Your task to perform on an android device: What's the weather today? Image 0: 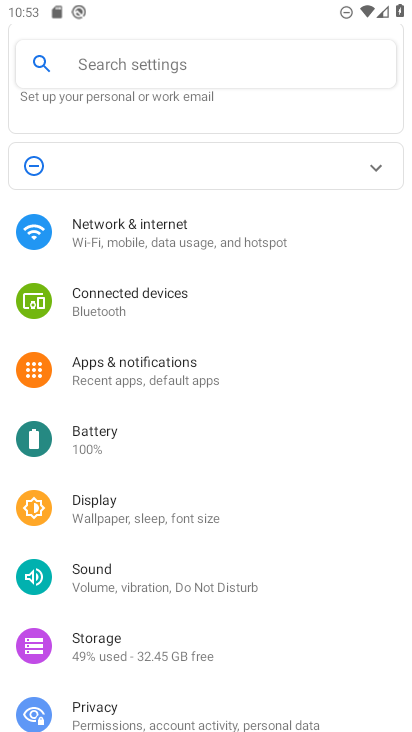
Step 0: press home button
Your task to perform on an android device: What's the weather today? Image 1: 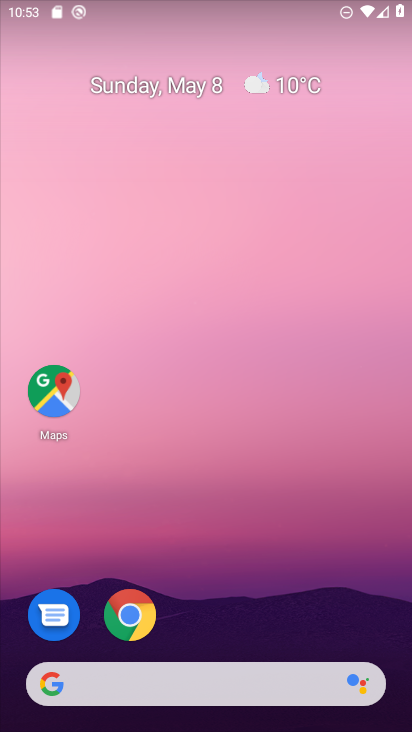
Step 1: click (312, 84)
Your task to perform on an android device: What's the weather today? Image 2: 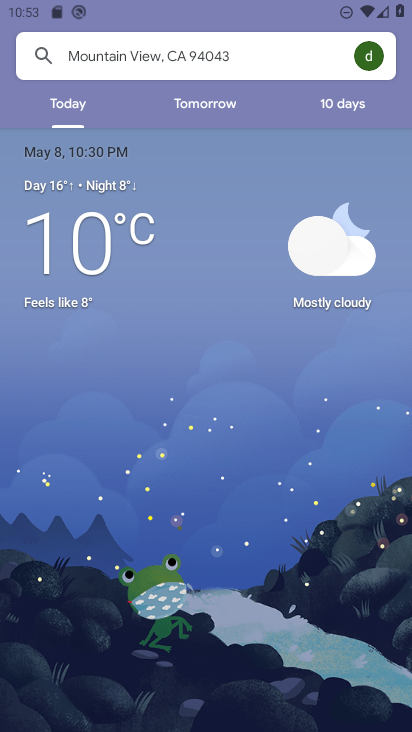
Step 2: task complete